Your task to perform on an android device: Open calendar and show me the first week of next month Image 0: 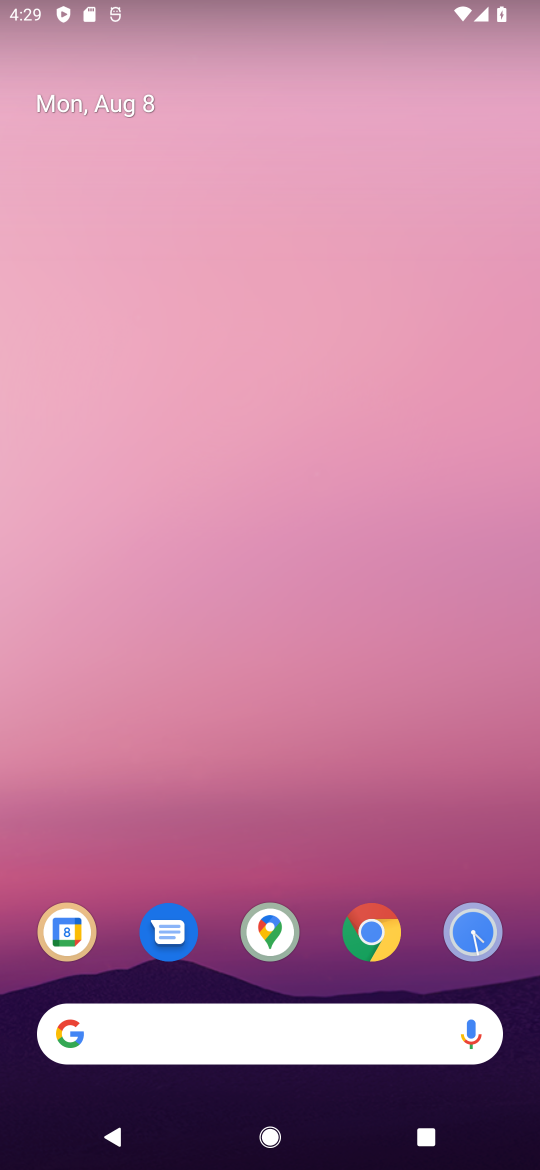
Step 0: click (81, 939)
Your task to perform on an android device: Open calendar and show me the first week of next month Image 1: 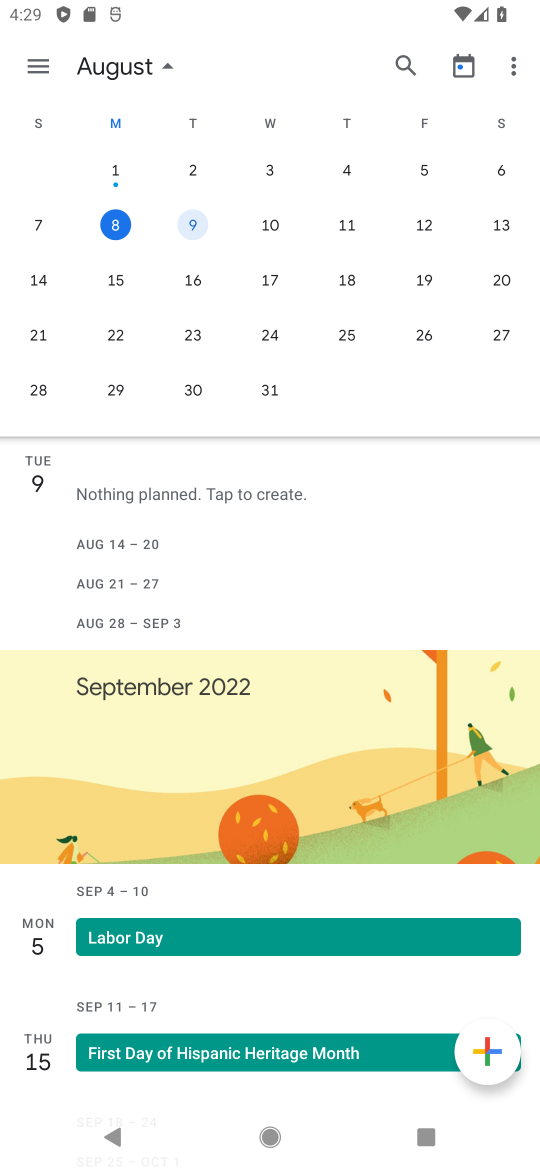
Step 1: task complete